Your task to perform on an android device: What is the recent news? Image 0: 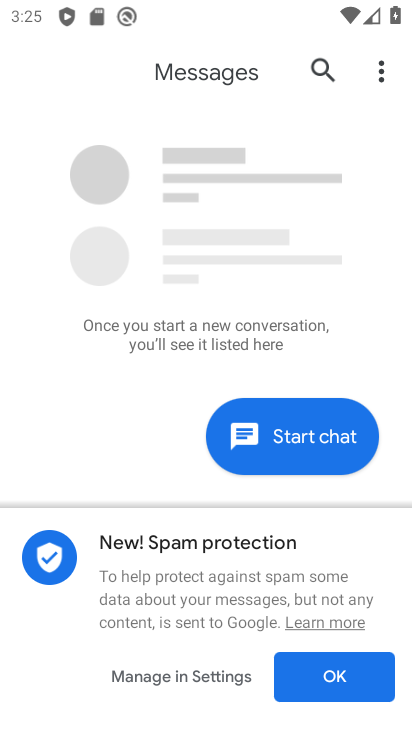
Step 0: press home button
Your task to perform on an android device: What is the recent news? Image 1: 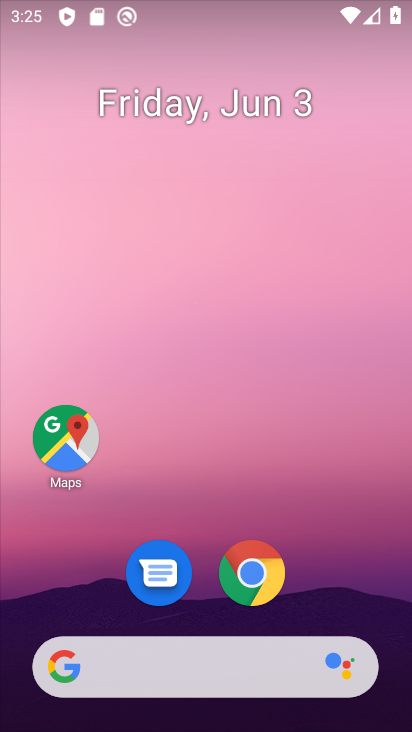
Step 1: task complete